Your task to perform on an android device: Search for pizza restaurants on Maps Image 0: 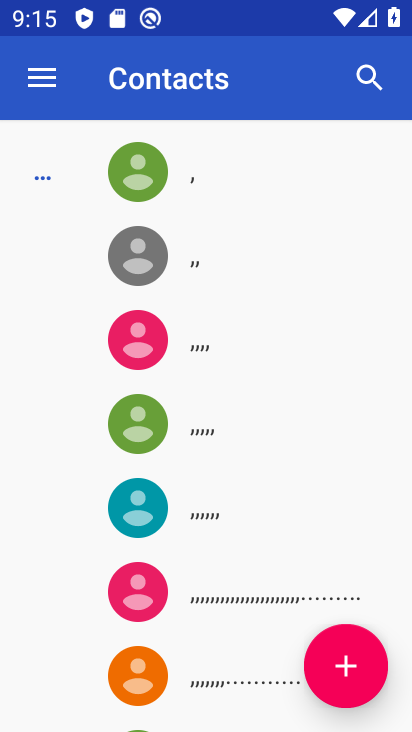
Step 0: press home button
Your task to perform on an android device: Search for pizza restaurants on Maps Image 1: 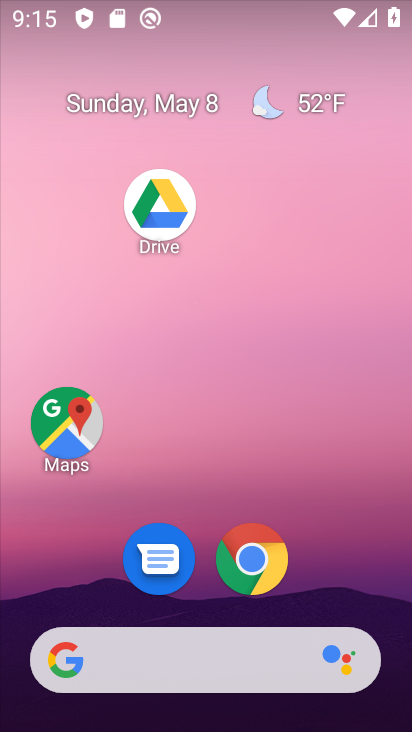
Step 1: click (72, 421)
Your task to perform on an android device: Search for pizza restaurants on Maps Image 2: 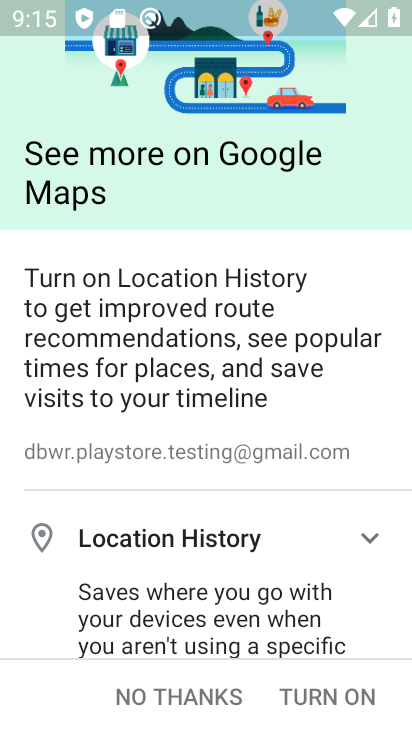
Step 2: drag from (174, 641) to (147, 277)
Your task to perform on an android device: Search for pizza restaurants on Maps Image 3: 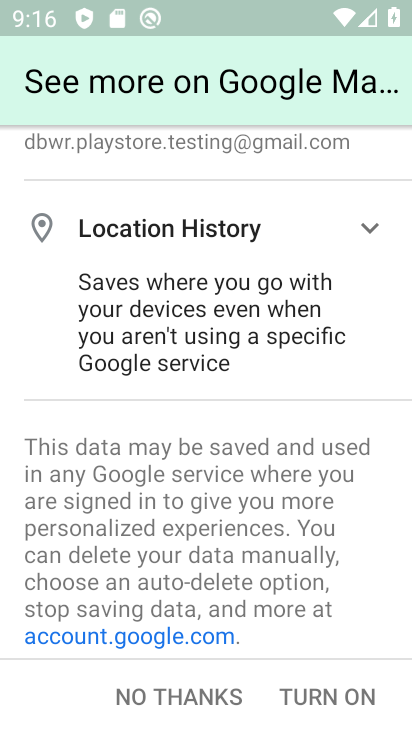
Step 3: drag from (161, 349) to (162, 513)
Your task to perform on an android device: Search for pizza restaurants on Maps Image 4: 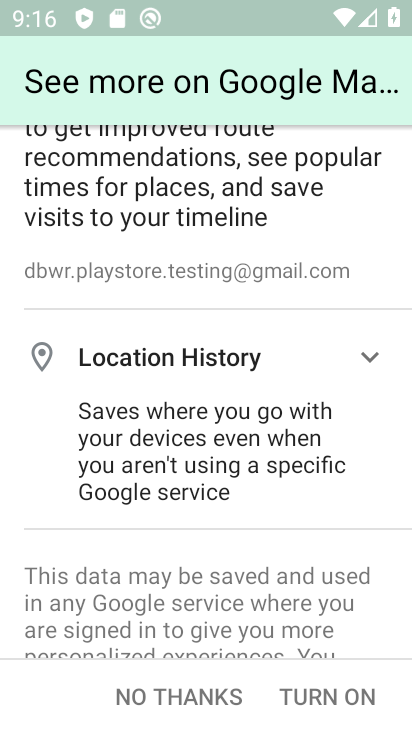
Step 4: drag from (264, 494) to (222, 702)
Your task to perform on an android device: Search for pizza restaurants on Maps Image 5: 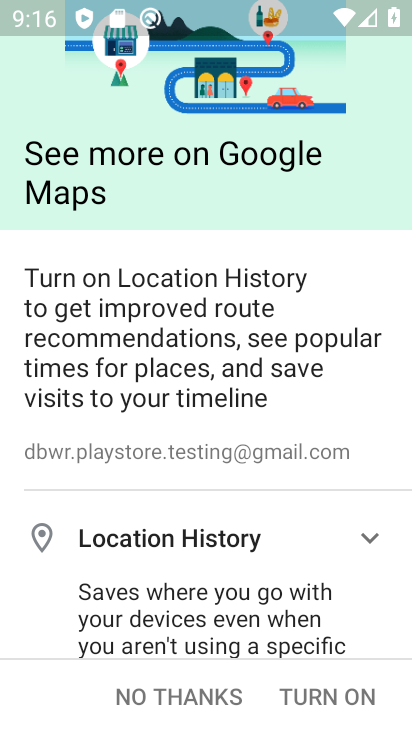
Step 5: click (218, 699)
Your task to perform on an android device: Search for pizza restaurants on Maps Image 6: 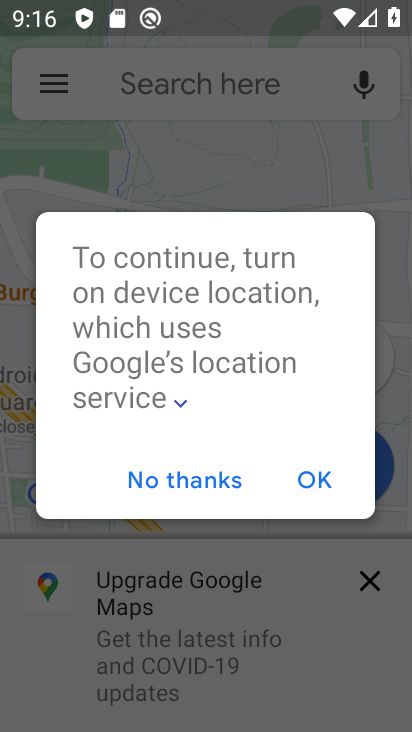
Step 6: click (306, 475)
Your task to perform on an android device: Search for pizza restaurants on Maps Image 7: 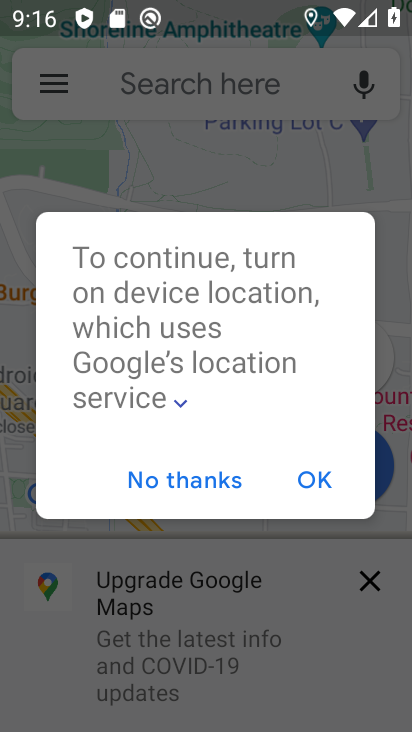
Step 7: click (320, 483)
Your task to perform on an android device: Search for pizza restaurants on Maps Image 8: 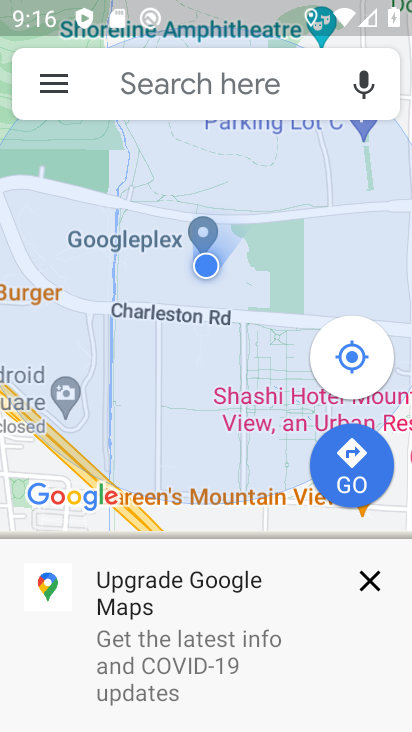
Step 8: click (175, 72)
Your task to perform on an android device: Search for pizza restaurants on Maps Image 9: 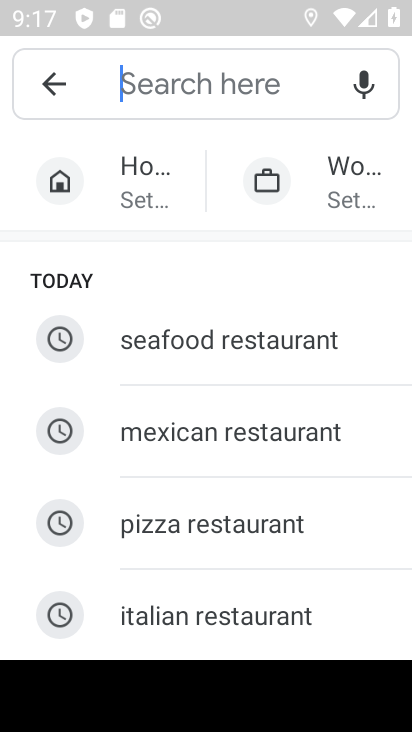
Step 9: click (208, 505)
Your task to perform on an android device: Search for pizza restaurants on Maps Image 10: 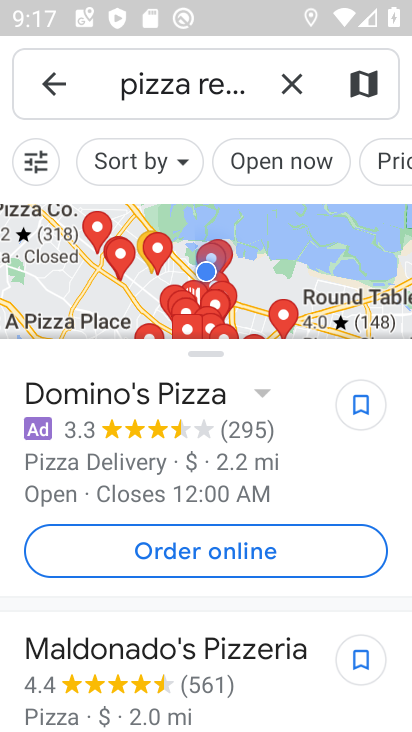
Step 10: task complete